Your task to perform on an android device: turn pop-ups off in chrome Image 0: 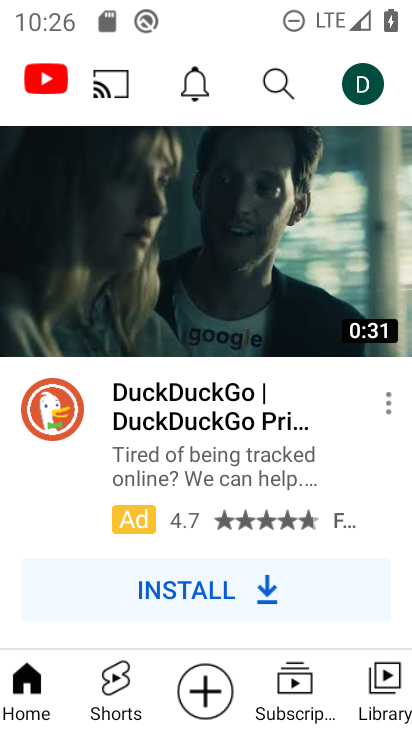
Step 0: press home button
Your task to perform on an android device: turn pop-ups off in chrome Image 1: 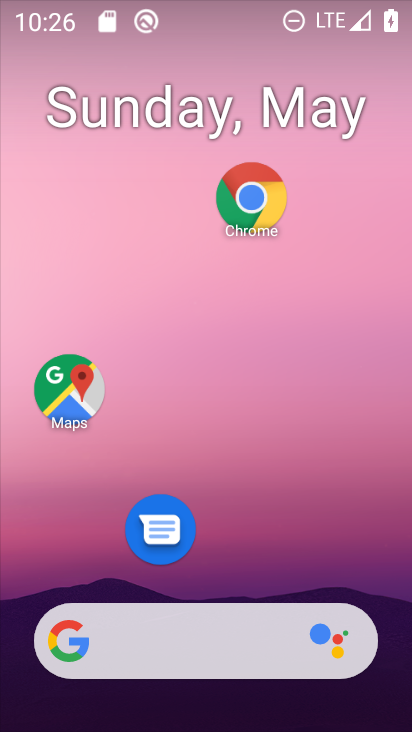
Step 1: click (253, 202)
Your task to perform on an android device: turn pop-ups off in chrome Image 2: 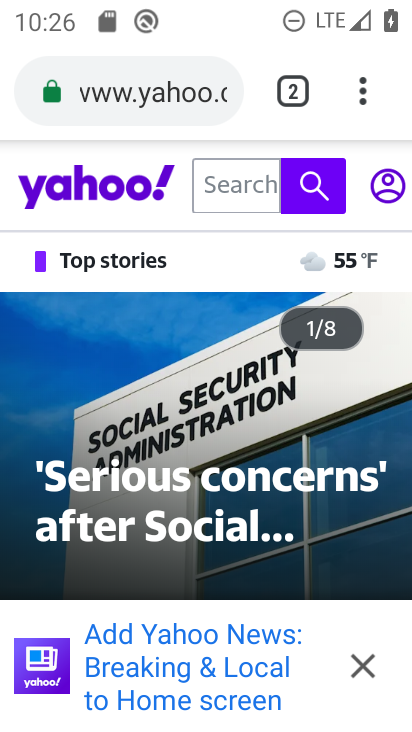
Step 2: click (352, 88)
Your task to perform on an android device: turn pop-ups off in chrome Image 3: 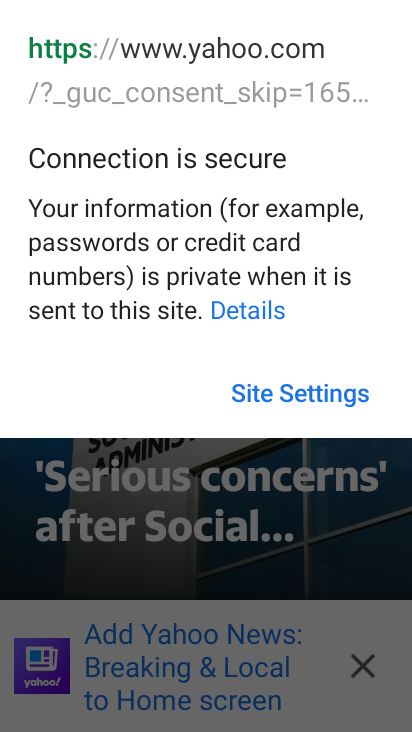
Step 3: click (167, 459)
Your task to perform on an android device: turn pop-ups off in chrome Image 4: 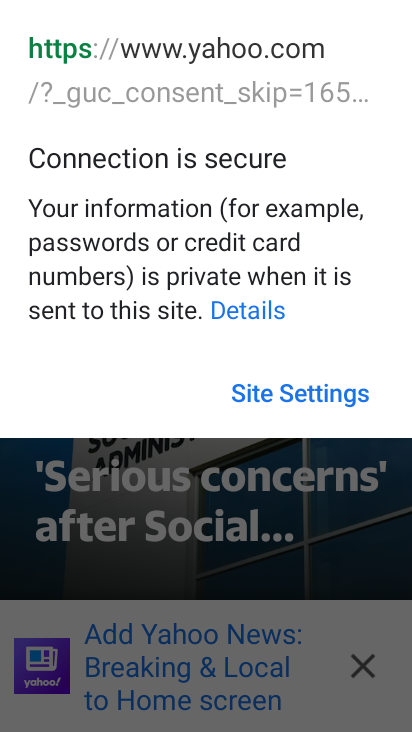
Step 4: click (179, 467)
Your task to perform on an android device: turn pop-ups off in chrome Image 5: 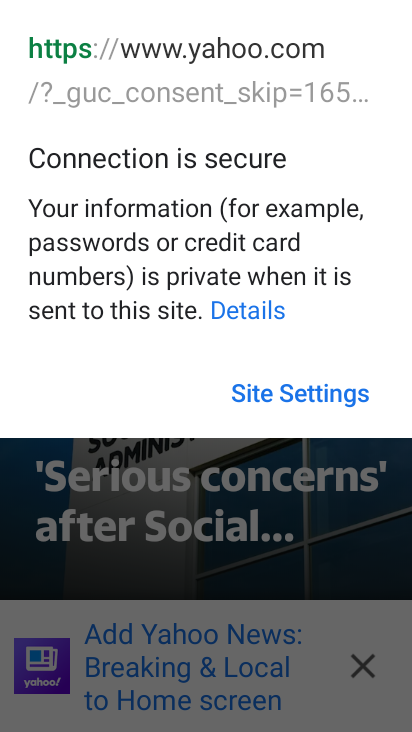
Step 5: press back button
Your task to perform on an android device: turn pop-ups off in chrome Image 6: 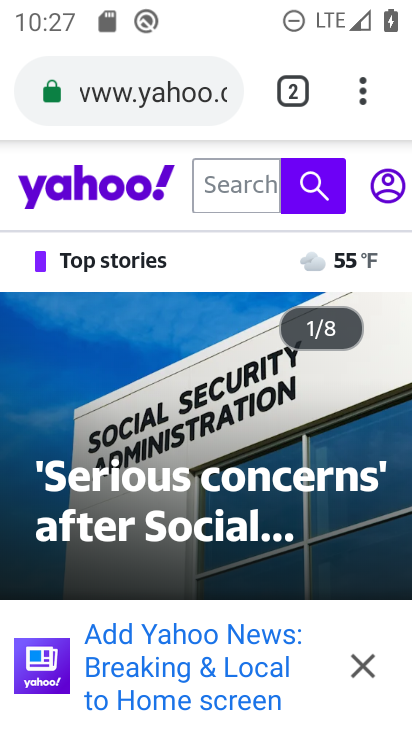
Step 6: click (354, 88)
Your task to perform on an android device: turn pop-ups off in chrome Image 7: 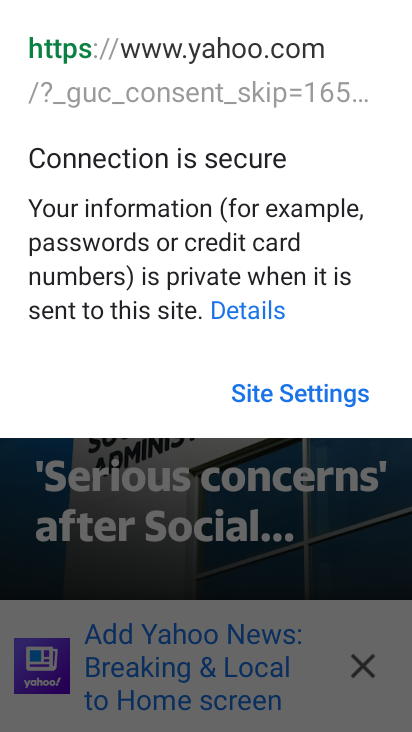
Step 7: press back button
Your task to perform on an android device: turn pop-ups off in chrome Image 8: 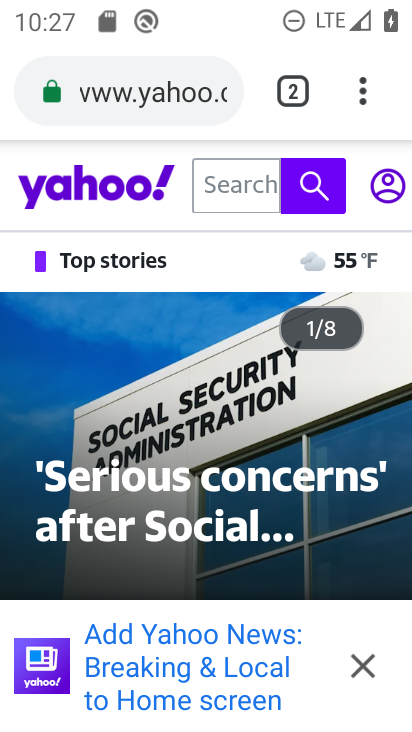
Step 8: click (355, 92)
Your task to perform on an android device: turn pop-ups off in chrome Image 9: 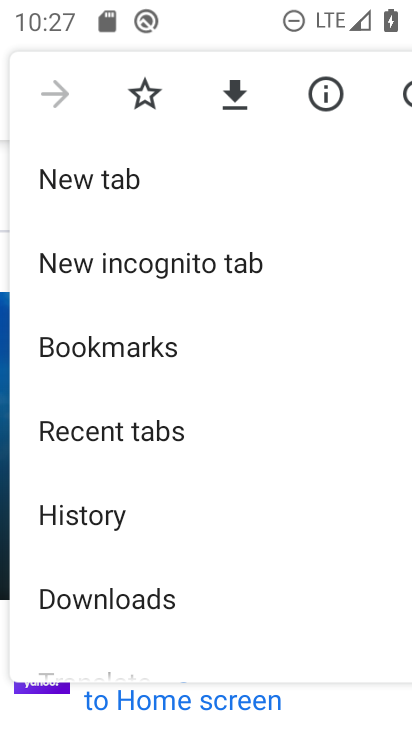
Step 9: drag from (192, 581) to (210, 295)
Your task to perform on an android device: turn pop-ups off in chrome Image 10: 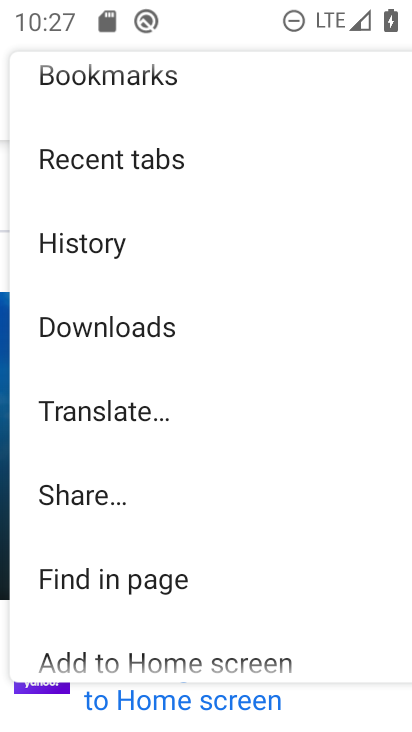
Step 10: drag from (198, 603) to (244, 223)
Your task to perform on an android device: turn pop-ups off in chrome Image 11: 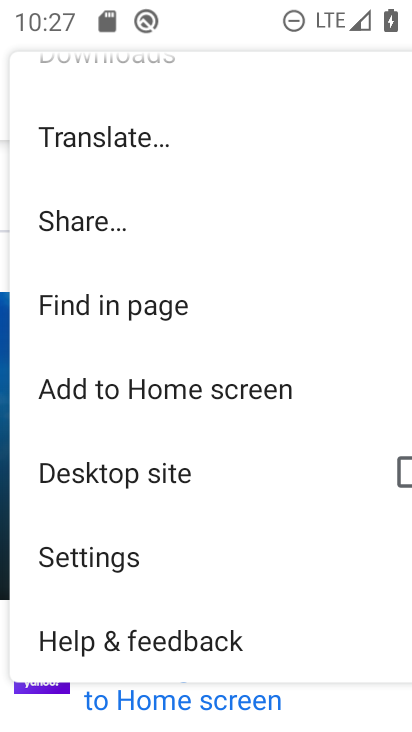
Step 11: click (165, 557)
Your task to perform on an android device: turn pop-ups off in chrome Image 12: 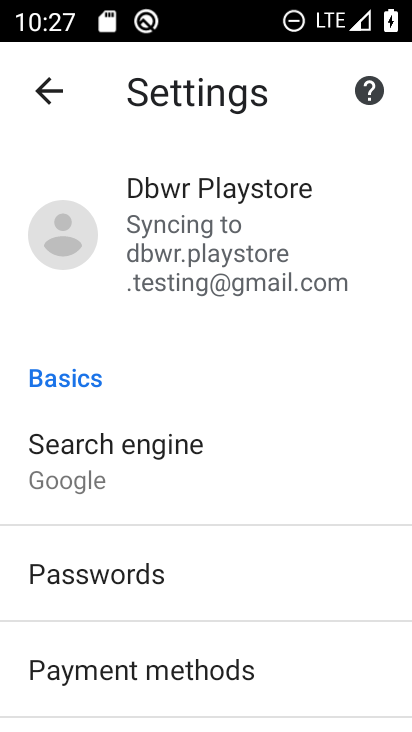
Step 12: drag from (154, 665) to (220, 303)
Your task to perform on an android device: turn pop-ups off in chrome Image 13: 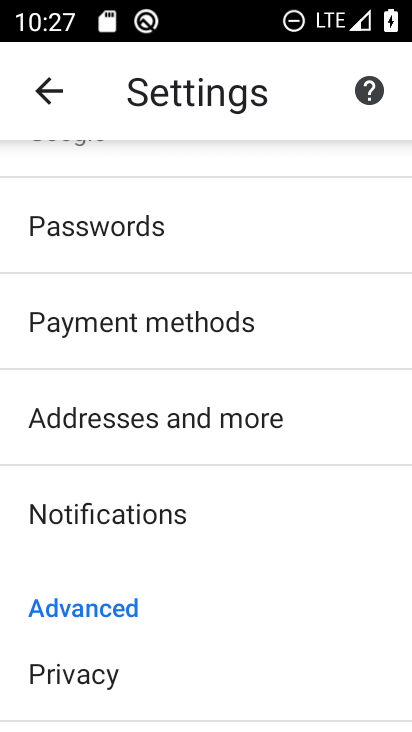
Step 13: drag from (109, 683) to (167, 309)
Your task to perform on an android device: turn pop-ups off in chrome Image 14: 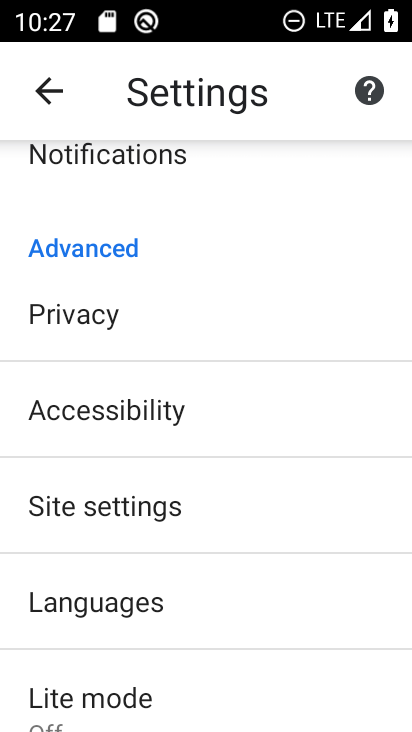
Step 14: click (121, 512)
Your task to perform on an android device: turn pop-ups off in chrome Image 15: 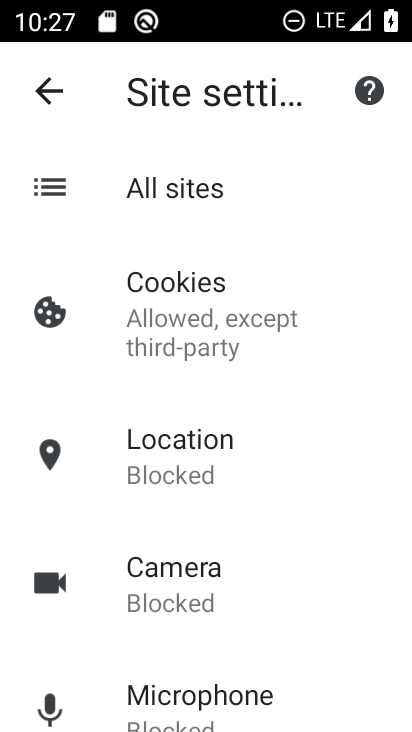
Step 15: drag from (266, 660) to (320, 287)
Your task to perform on an android device: turn pop-ups off in chrome Image 16: 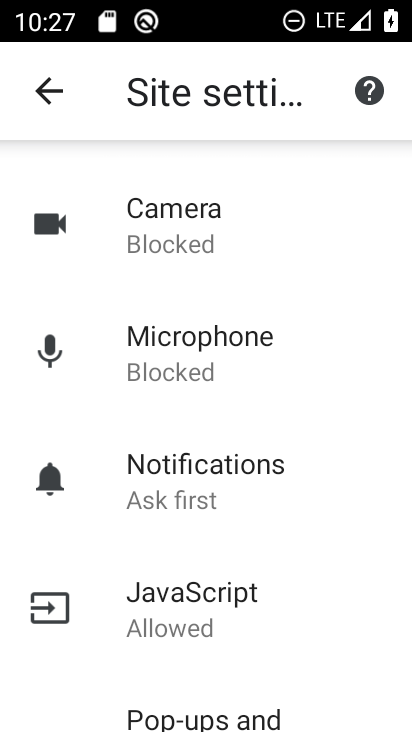
Step 16: drag from (258, 648) to (330, 328)
Your task to perform on an android device: turn pop-ups off in chrome Image 17: 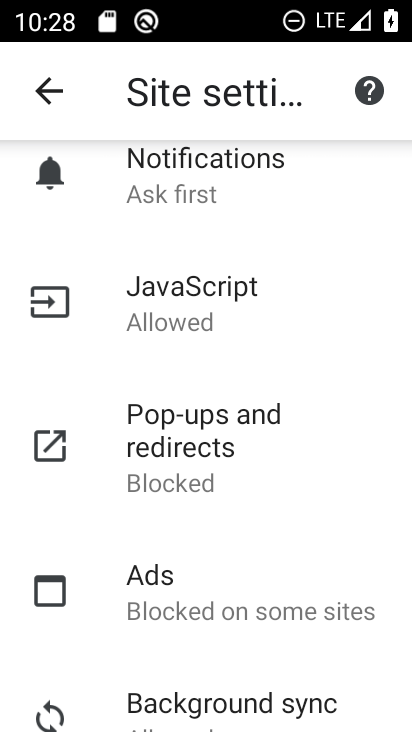
Step 17: click (193, 450)
Your task to perform on an android device: turn pop-ups off in chrome Image 18: 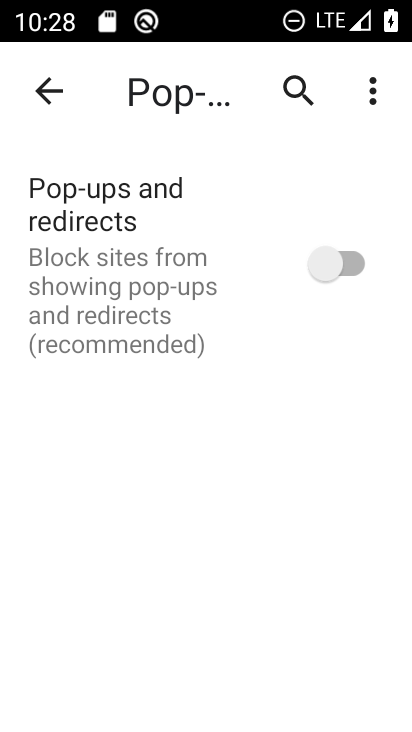
Step 18: task complete